Your task to perform on an android device: Open the map Image 0: 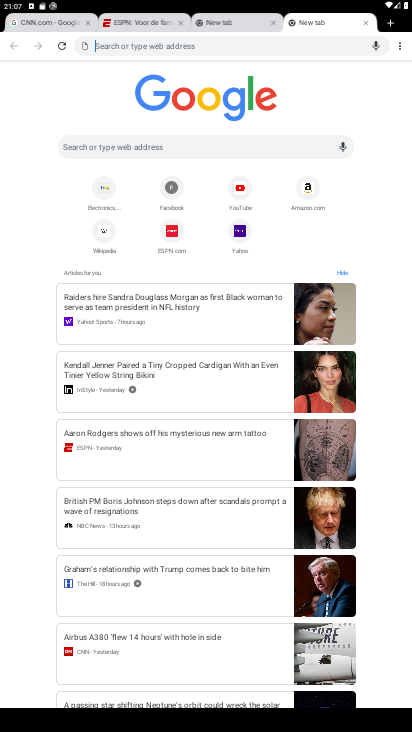
Step 0: press home button
Your task to perform on an android device: Open the map Image 1: 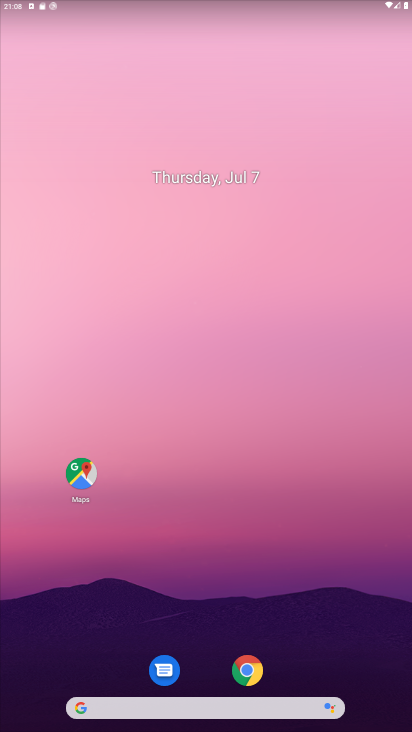
Step 1: click (60, 486)
Your task to perform on an android device: Open the map Image 2: 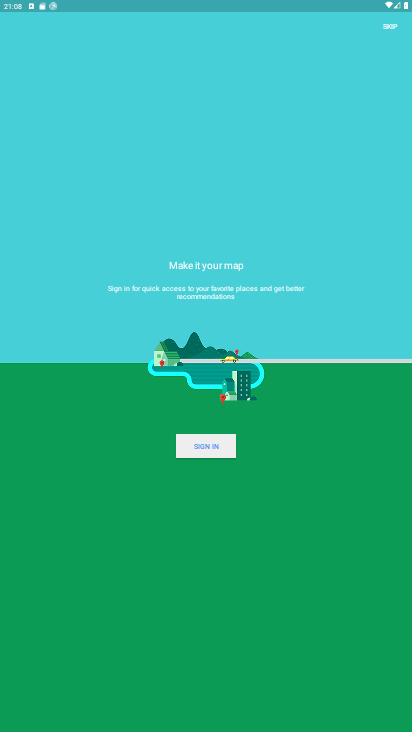
Step 2: task complete